Your task to perform on an android device: toggle data saver in the chrome app Image 0: 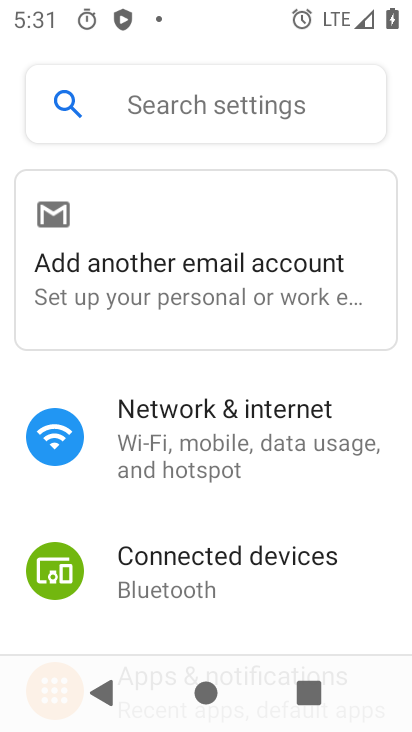
Step 0: drag from (334, 565) to (399, 211)
Your task to perform on an android device: toggle data saver in the chrome app Image 1: 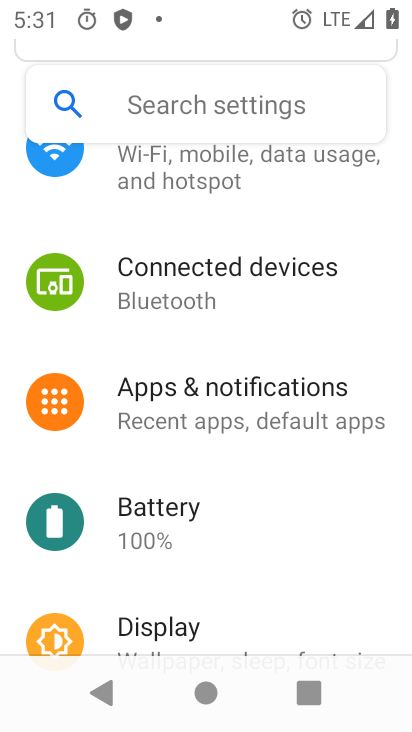
Step 1: press home button
Your task to perform on an android device: toggle data saver in the chrome app Image 2: 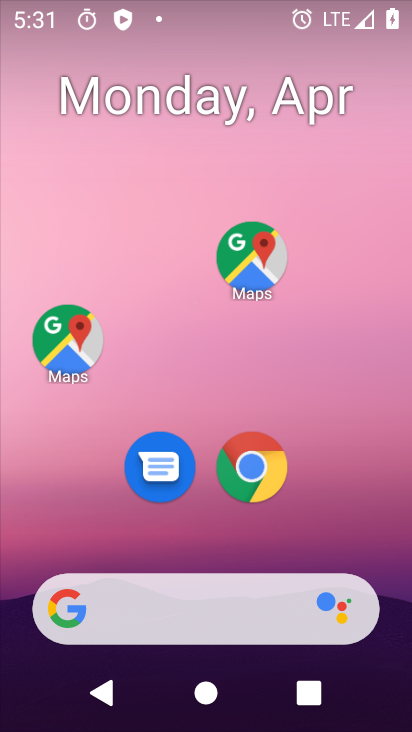
Step 2: drag from (277, 549) to (293, 11)
Your task to perform on an android device: toggle data saver in the chrome app Image 3: 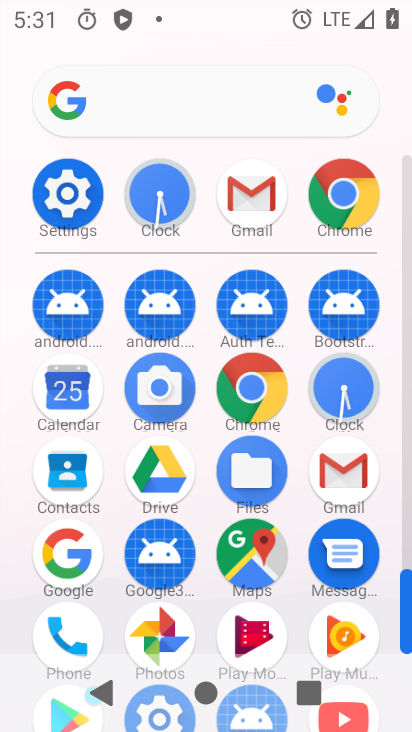
Step 3: drag from (296, 536) to (331, 95)
Your task to perform on an android device: toggle data saver in the chrome app Image 4: 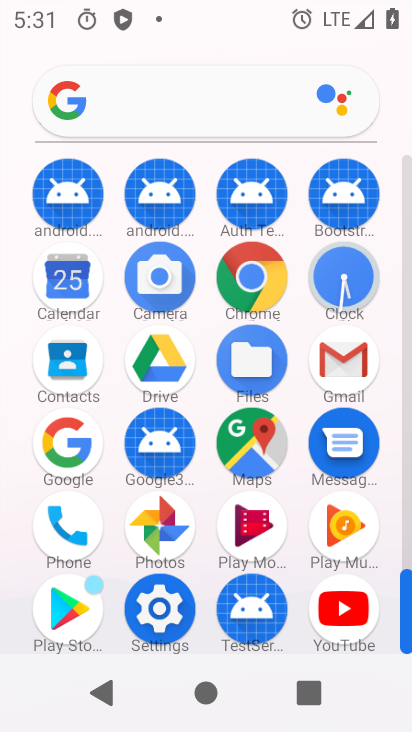
Step 4: click (161, 626)
Your task to perform on an android device: toggle data saver in the chrome app Image 5: 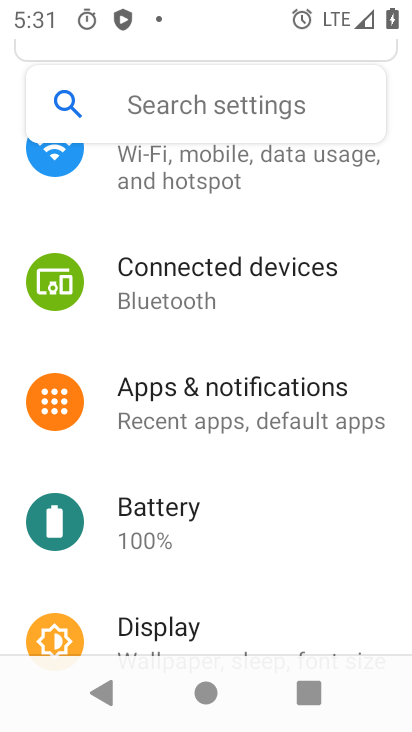
Step 5: task complete